Your task to perform on an android device: check battery use Image 0: 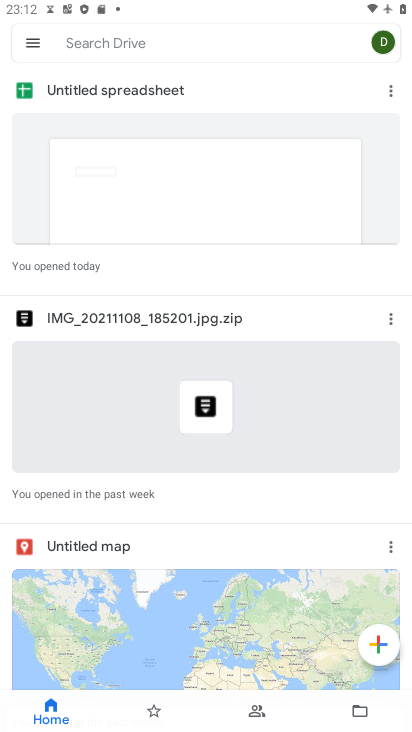
Step 0: press home button
Your task to perform on an android device: check battery use Image 1: 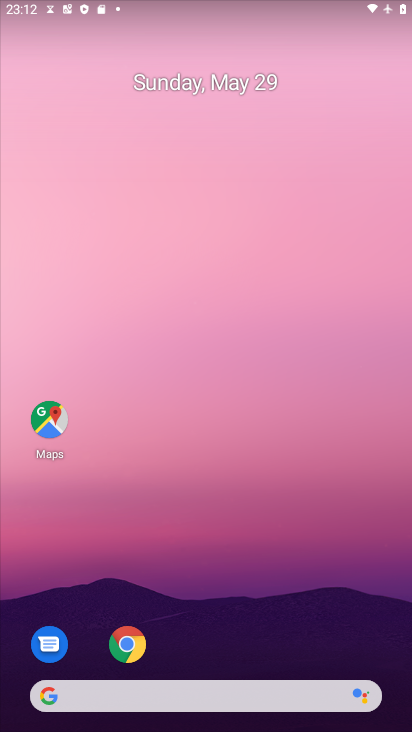
Step 1: drag from (241, 595) to (248, 290)
Your task to perform on an android device: check battery use Image 2: 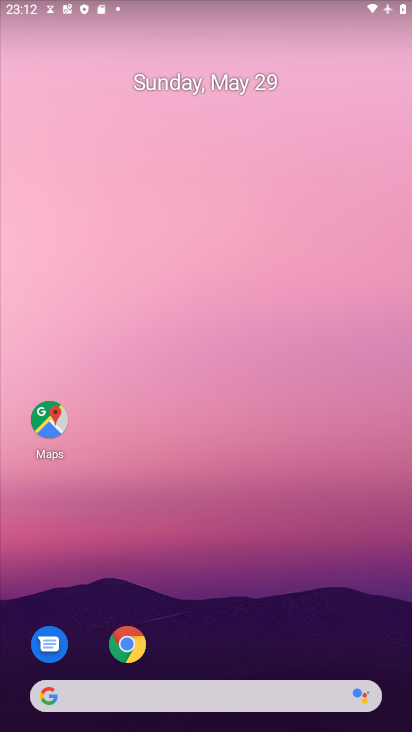
Step 2: drag from (215, 665) to (225, 343)
Your task to perform on an android device: check battery use Image 3: 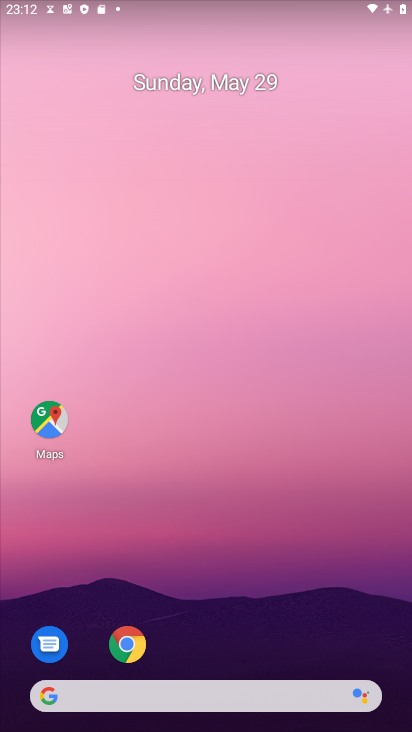
Step 3: drag from (189, 615) to (251, 261)
Your task to perform on an android device: check battery use Image 4: 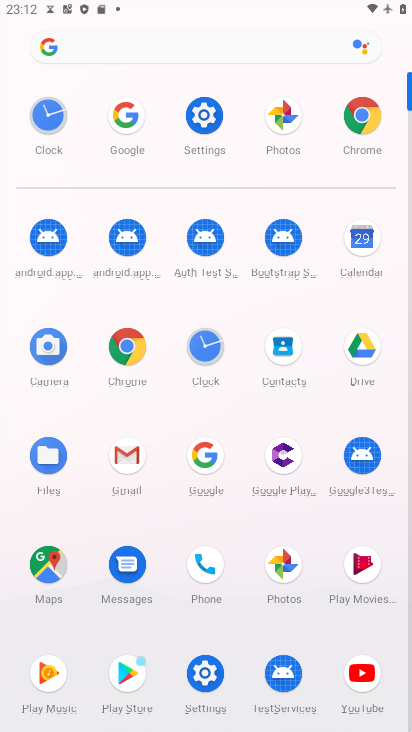
Step 4: click (199, 114)
Your task to perform on an android device: check battery use Image 5: 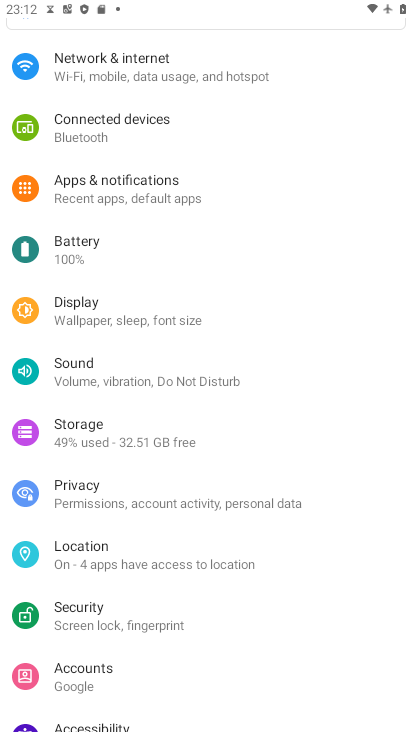
Step 5: click (110, 247)
Your task to perform on an android device: check battery use Image 6: 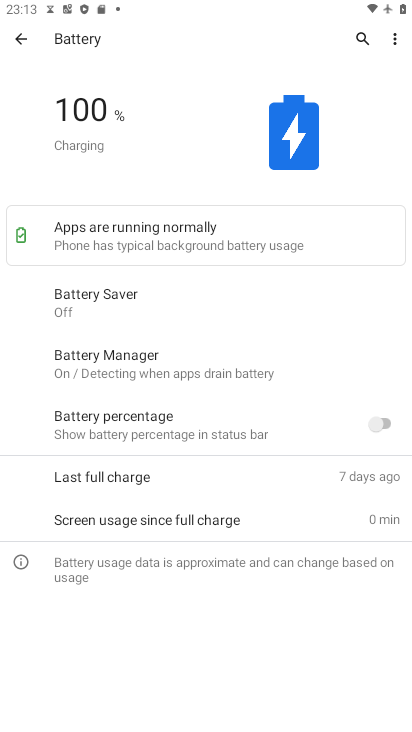
Step 6: task complete